Your task to perform on an android device: turn off javascript in the chrome app Image 0: 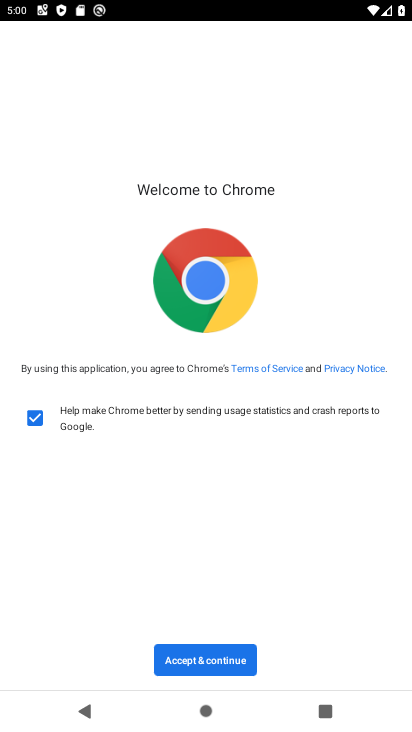
Step 0: click (215, 654)
Your task to perform on an android device: turn off javascript in the chrome app Image 1: 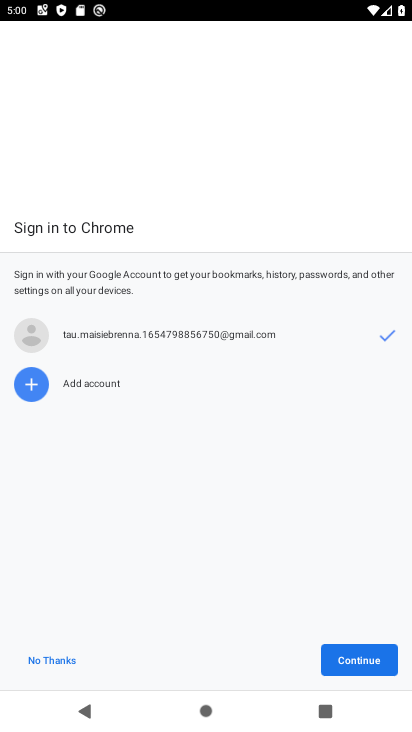
Step 1: click (356, 667)
Your task to perform on an android device: turn off javascript in the chrome app Image 2: 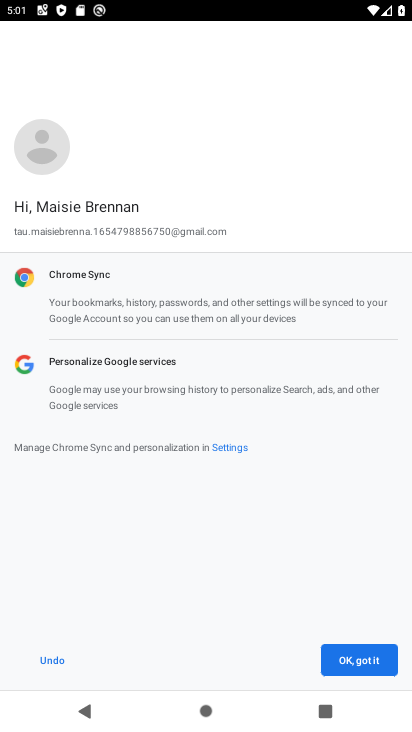
Step 2: click (368, 656)
Your task to perform on an android device: turn off javascript in the chrome app Image 3: 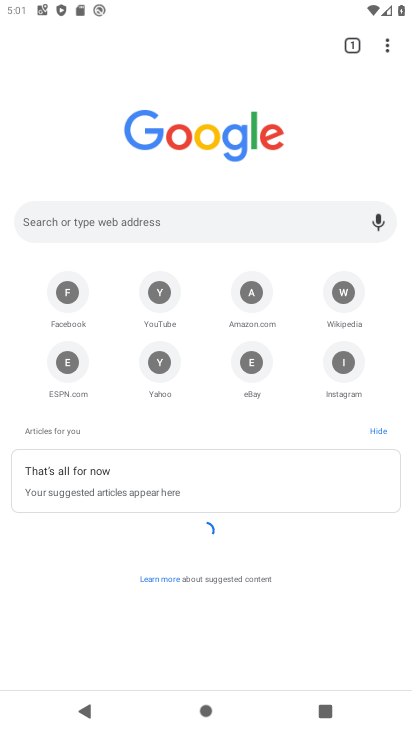
Step 3: click (389, 43)
Your task to perform on an android device: turn off javascript in the chrome app Image 4: 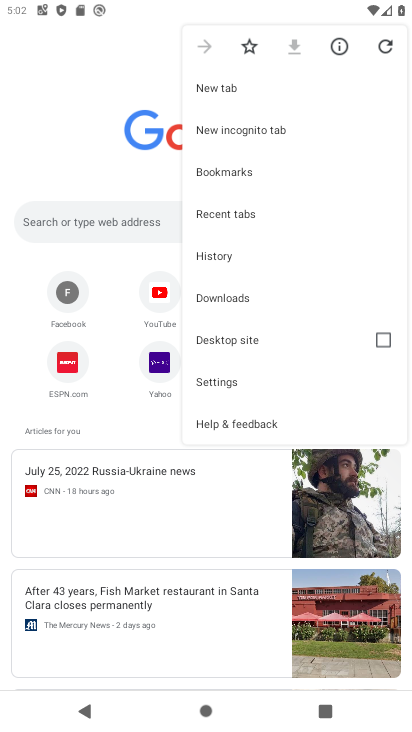
Step 4: click (198, 365)
Your task to perform on an android device: turn off javascript in the chrome app Image 5: 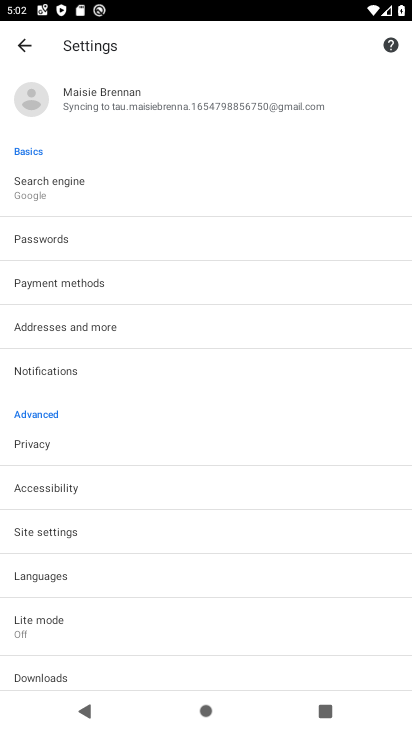
Step 5: click (71, 535)
Your task to perform on an android device: turn off javascript in the chrome app Image 6: 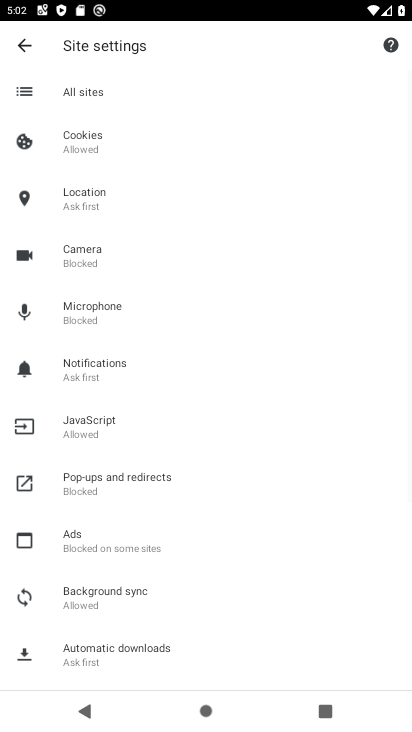
Step 6: click (110, 429)
Your task to perform on an android device: turn off javascript in the chrome app Image 7: 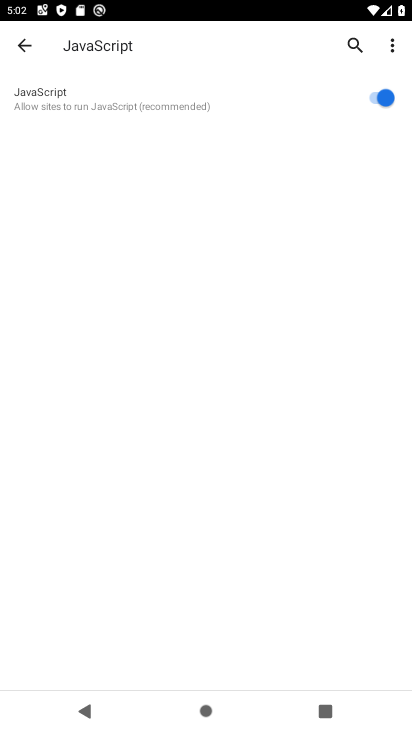
Step 7: click (367, 103)
Your task to perform on an android device: turn off javascript in the chrome app Image 8: 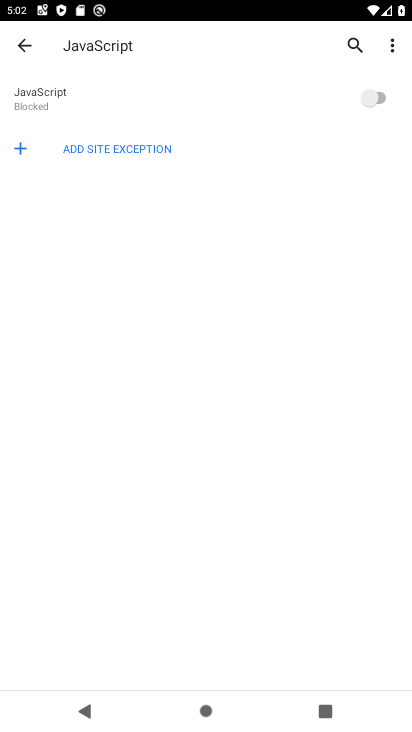
Step 8: task complete